Your task to perform on an android device: turn smart compose on in the gmail app Image 0: 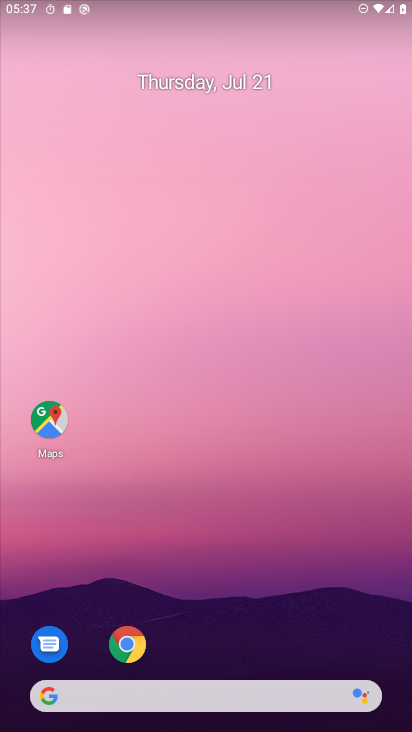
Step 0: drag from (181, 632) to (198, 45)
Your task to perform on an android device: turn smart compose on in the gmail app Image 1: 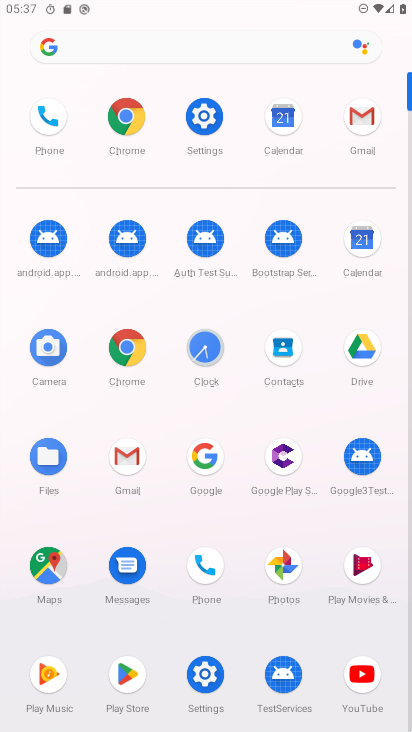
Step 1: click (355, 125)
Your task to perform on an android device: turn smart compose on in the gmail app Image 2: 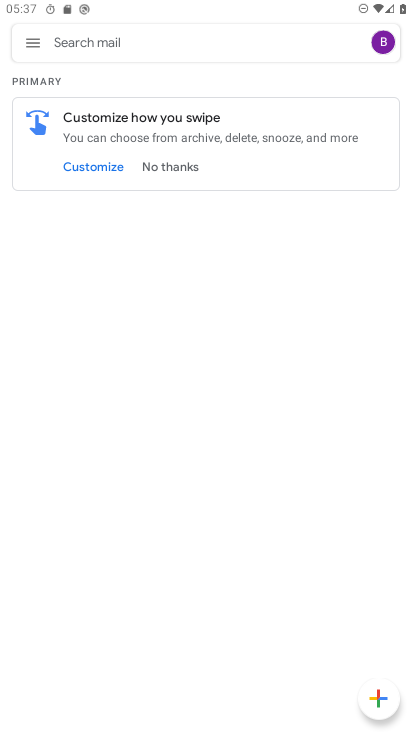
Step 2: click (32, 43)
Your task to perform on an android device: turn smart compose on in the gmail app Image 3: 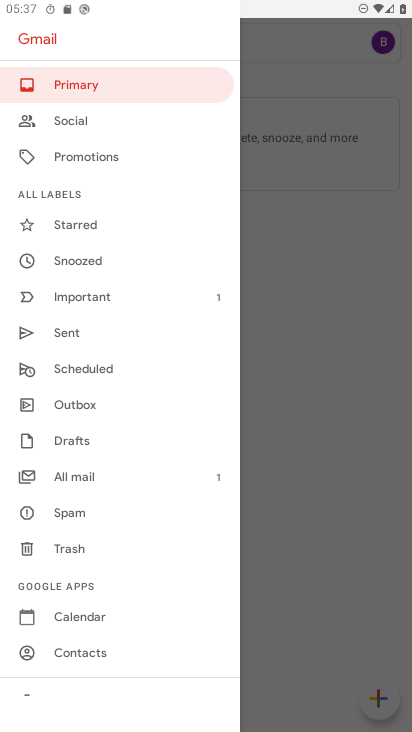
Step 3: drag from (98, 597) to (124, 162)
Your task to perform on an android device: turn smart compose on in the gmail app Image 4: 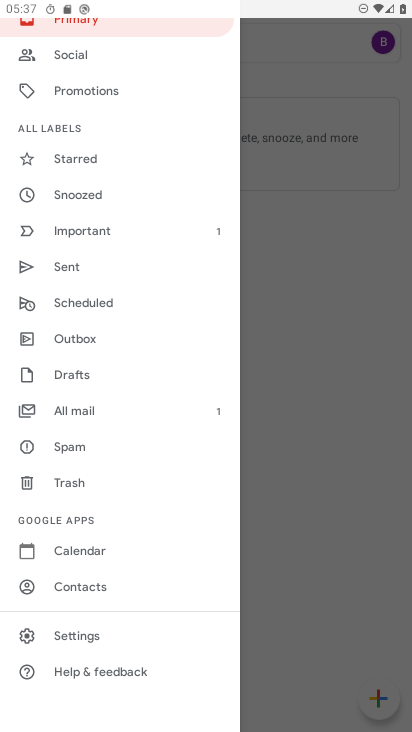
Step 4: click (65, 636)
Your task to perform on an android device: turn smart compose on in the gmail app Image 5: 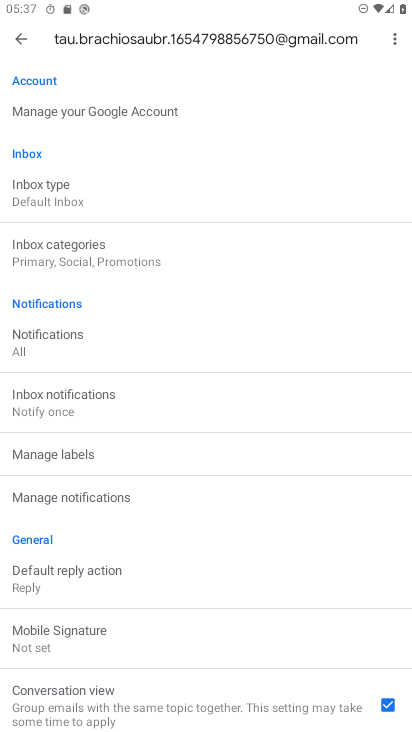
Step 5: task complete